Your task to perform on an android device: turn off notifications in google photos Image 0: 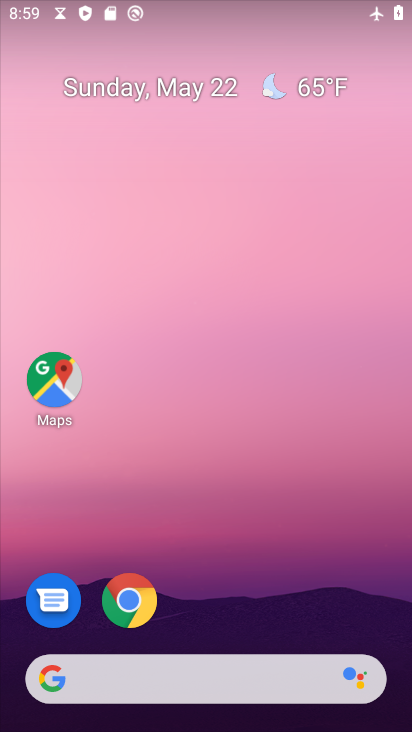
Step 0: drag from (211, 626) to (331, 11)
Your task to perform on an android device: turn off notifications in google photos Image 1: 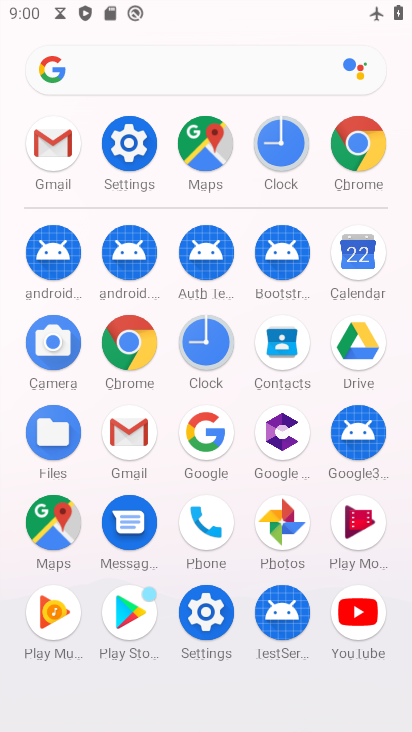
Step 1: click (293, 529)
Your task to perform on an android device: turn off notifications in google photos Image 2: 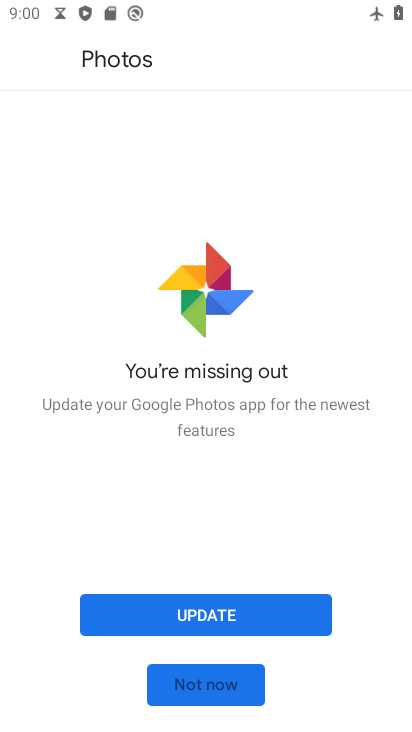
Step 2: click (208, 694)
Your task to perform on an android device: turn off notifications in google photos Image 3: 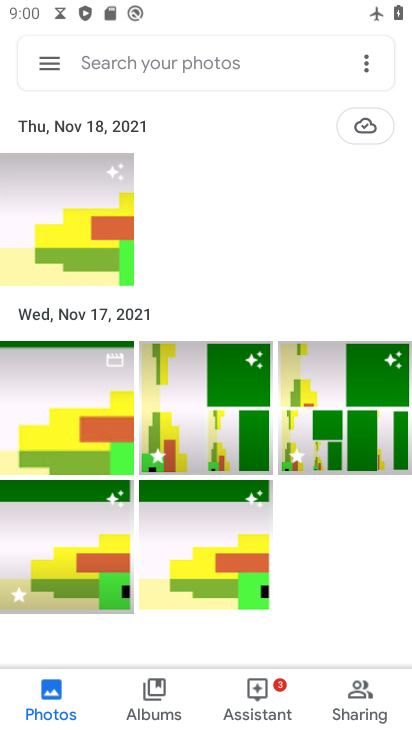
Step 3: click (49, 63)
Your task to perform on an android device: turn off notifications in google photos Image 4: 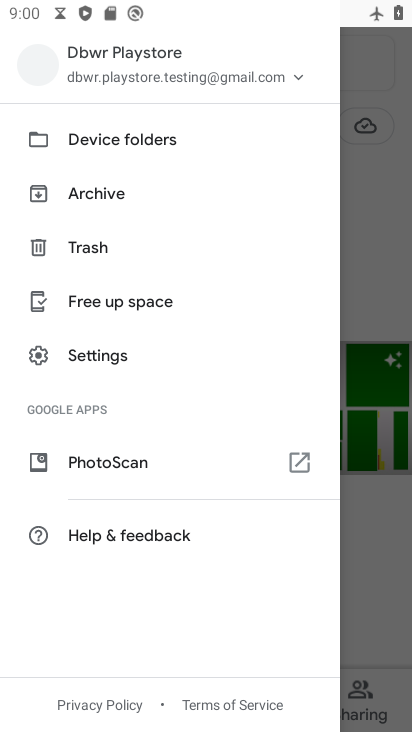
Step 4: click (99, 357)
Your task to perform on an android device: turn off notifications in google photos Image 5: 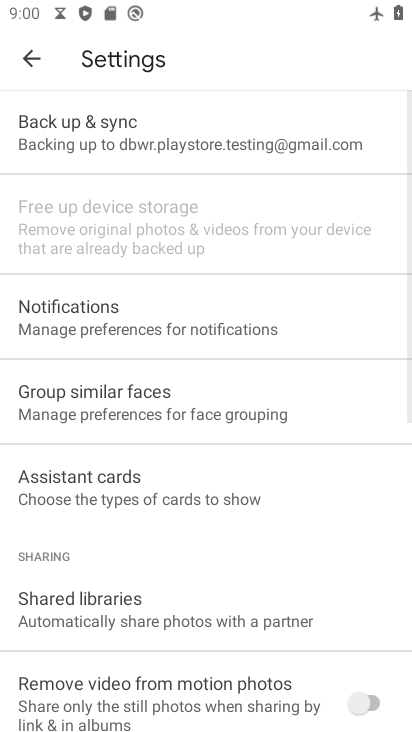
Step 5: click (95, 334)
Your task to perform on an android device: turn off notifications in google photos Image 6: 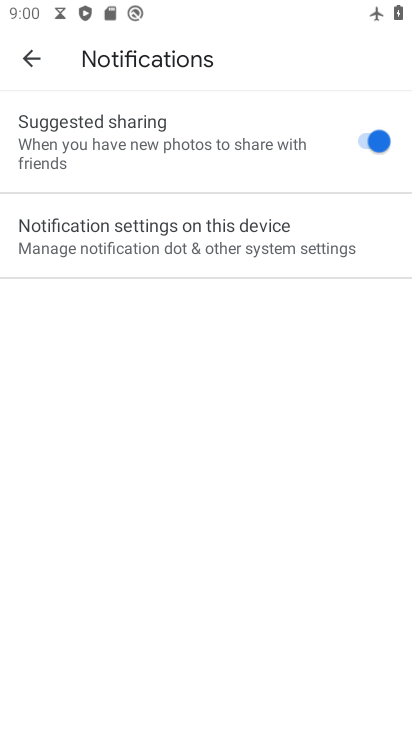
Step 6: click (367, 141)
Your task to perform on an android device: turn off notifications in google photos Image 7: 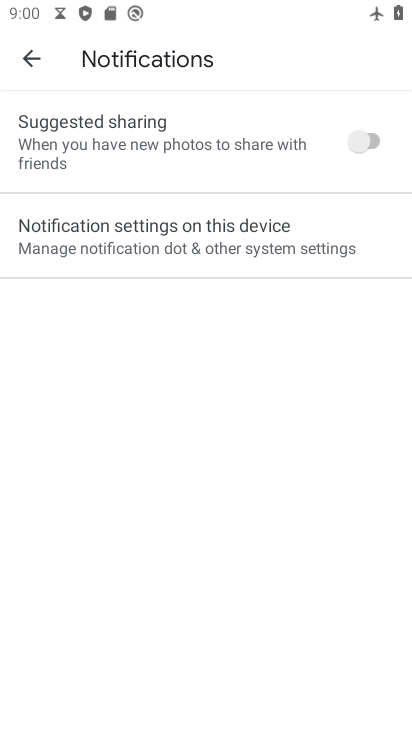
Step 7: task complete